Your task to perform on an android device: find which apps use the phone's location Image 0: 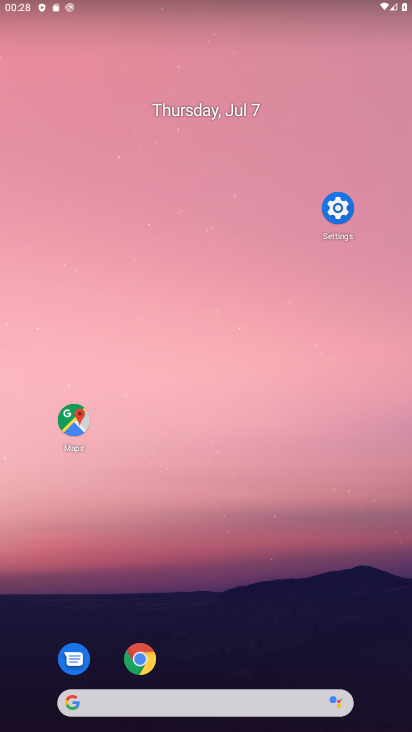
Step 0: drag from (264, 673) to (157, 228)
Your task to perform on an android device: find which apps use the phone's location Image 1: 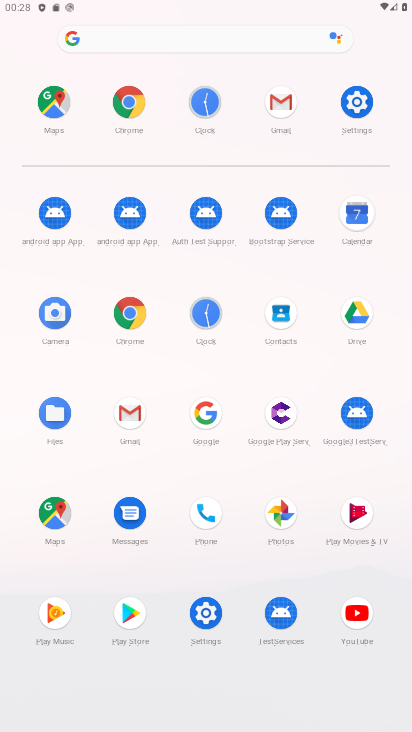
Step 1: click (353, 109)
Your task to perform on an android device: find which apps use the phone's location Image 2: 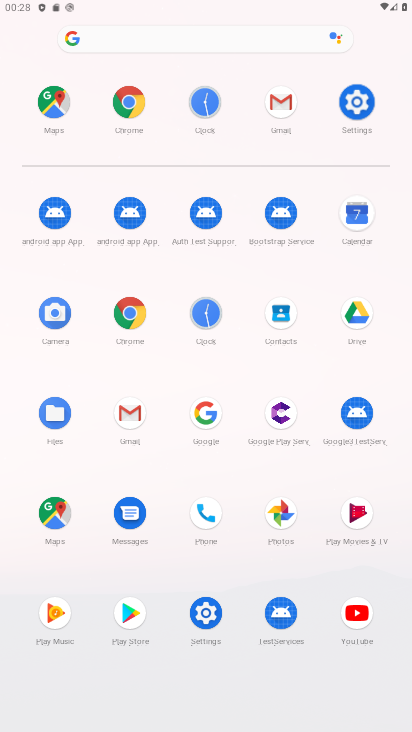
Step 2: click (357, 107)
Your task to perform on an android device: find which apps use the phone's location Image 3: 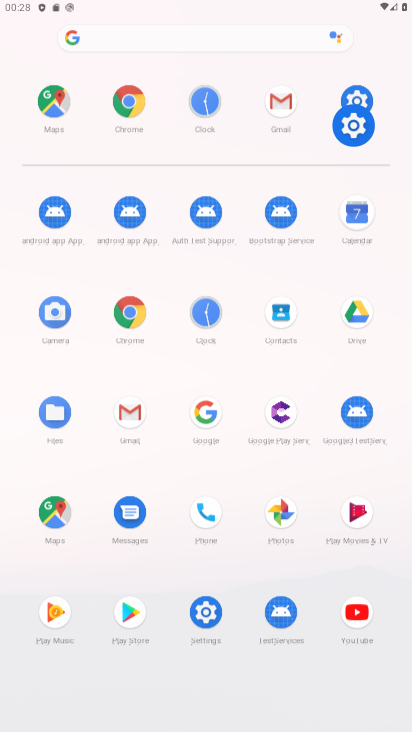
Step 3: click (357, 107)
Your task to perform on an android device: find which apps use the phone's location Image 4: 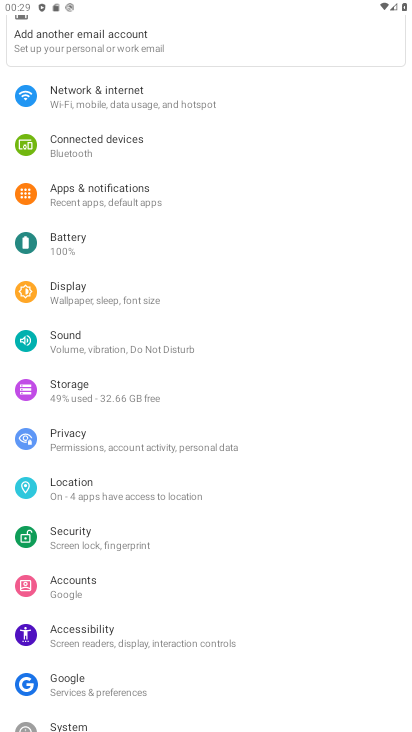
Step 4: click (86, 479)
Your task to perform on an android device: find which apps use the phone's location Image 5: 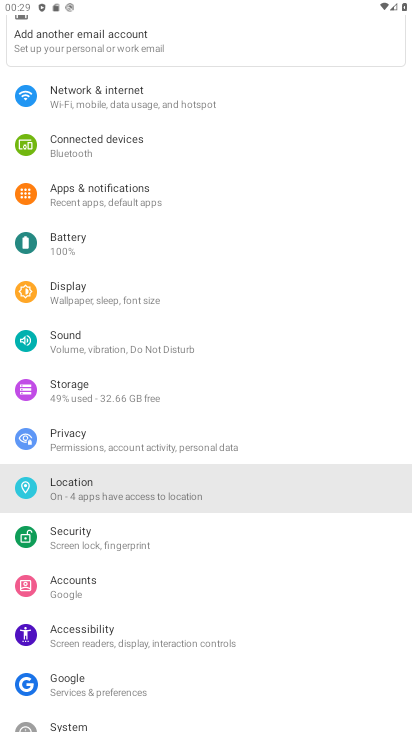
Step 5: click (92, 477)
Your task to perform on an android device: find which apps use the phone's location Image 6: 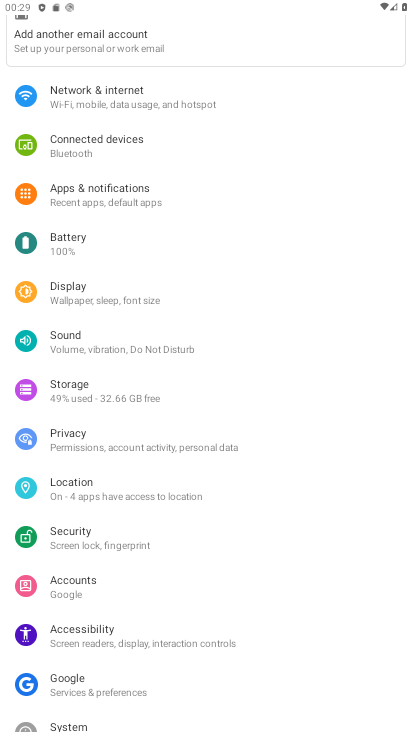
Step 6: click (91, 477)
Your task to perform on an android device: find which apps use the phone's location Image 7: 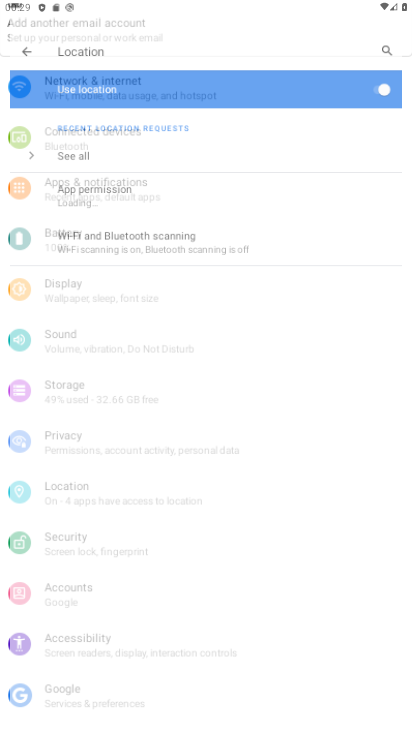
Step 7: click (92, 476)
Your task to perform on an android device: find which apps use the phone's location Image 8: 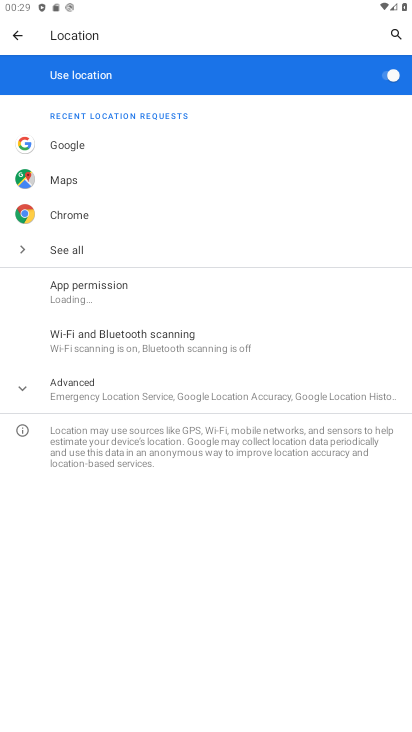
Step 8: click (86, 294)
Your task to perform on an android device: find which apps use the phone's location Image 9: 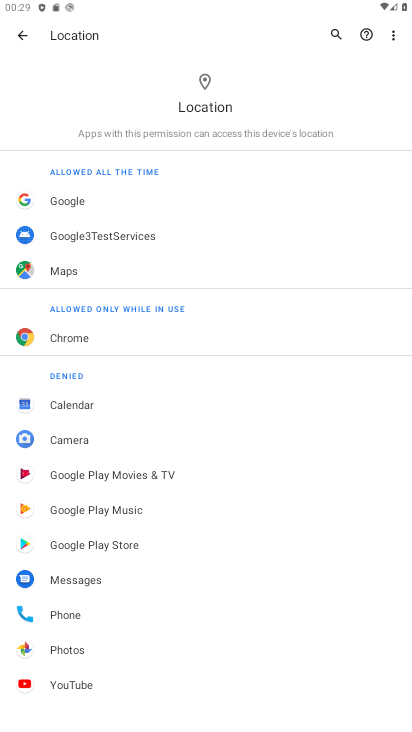
Step 9: click (19, 36)
Your task to perform on an android device: find which apps use the phone's location Image 10: 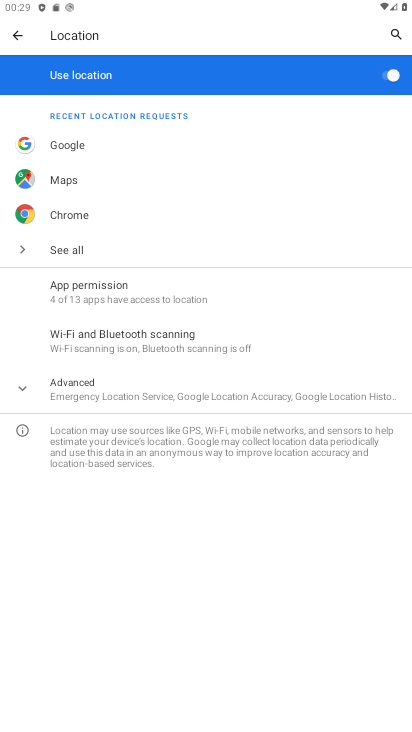
Step 10: task complete